Your task to perform on an android device: What's the weather? Image 0: 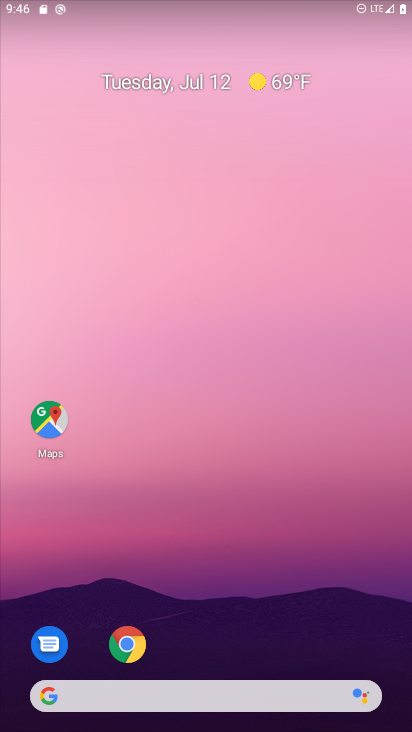
Step 0: press home button
Your task to perform on an android device: What's the weather? Image 1: 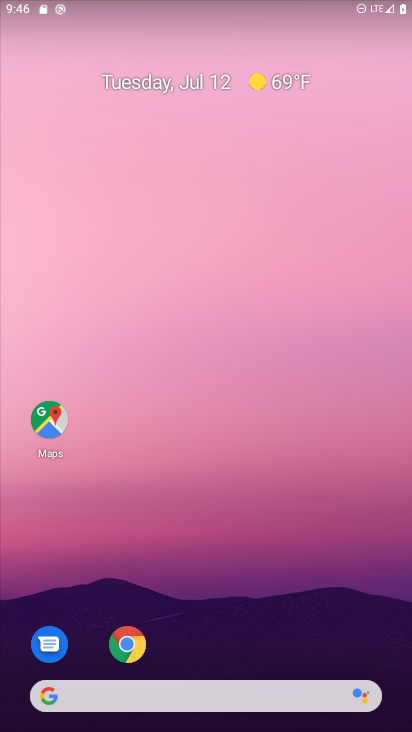
Step 1: press home button
Your task to perform on an android device: What's the weather? Image 2: 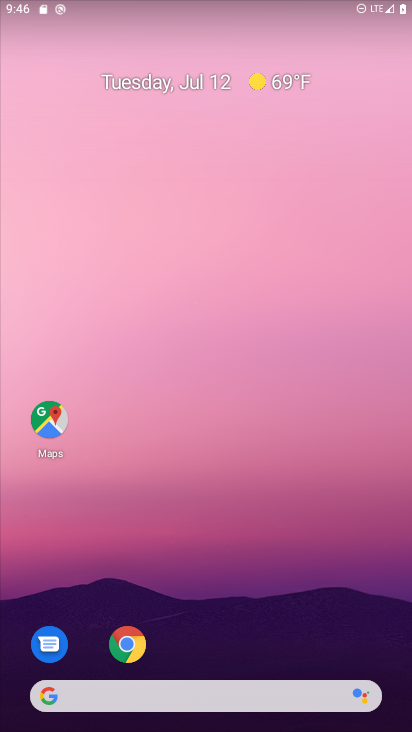
Step 2: click (144, 693)
Your task to perform on an android device: What's the weather? Image 3: 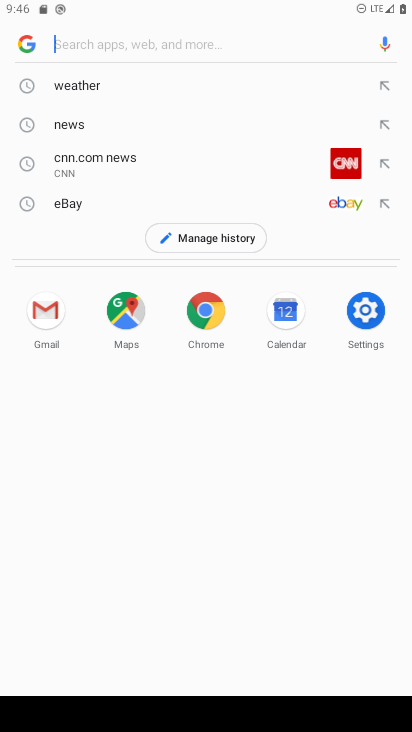
Step 3: click (103, 83)
Your task to perform on an android device: What's the weather? Image 4: 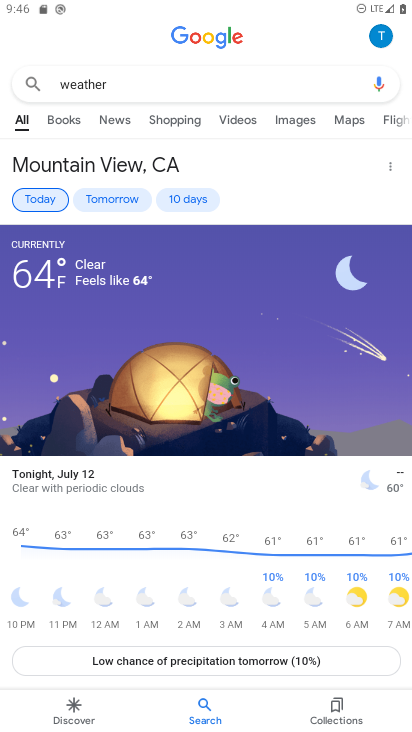
Step 4: task complete